Your task to perform on an android device: turn off javascript in the chrome app Image 0: 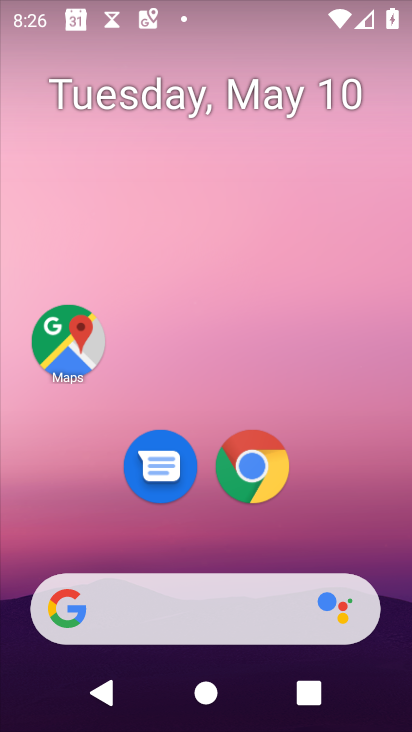
Step 0: click (251, 456)
Your task to perform on an android device: turn off javascript in the chrome app Image 1: 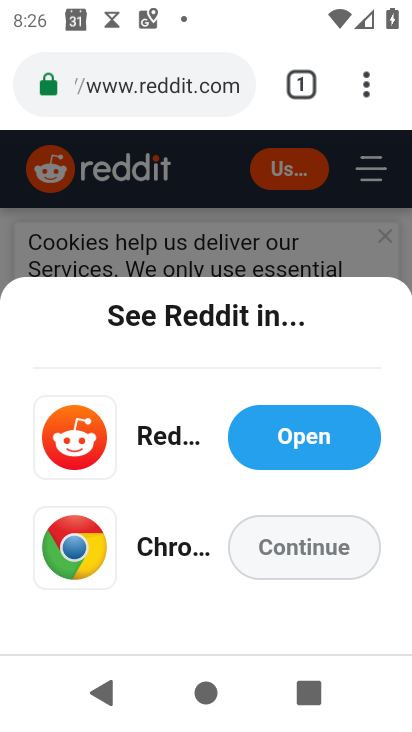
Step 1: click (375, 88)
Your task to perform on an android device: turn off javascript in the chrome app Image 2: 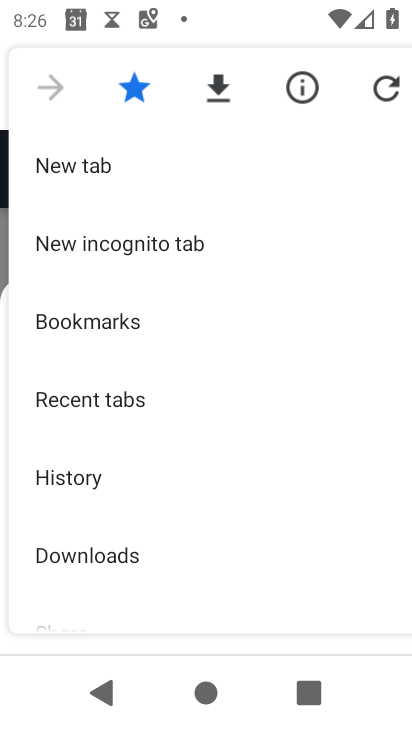
Step 2: drag from (221, 513) to (204, 193)
Your task to perform on an android device: turn off javascript in the chrome app Image 3: 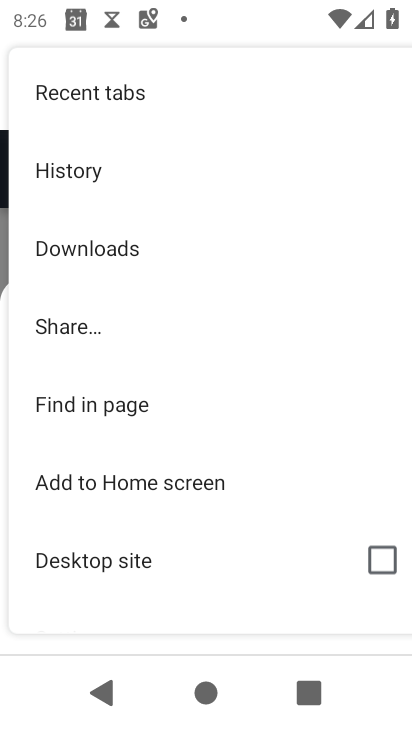
Step 3: drag from (151, 503) to (164, 292)
Your task to perform on an android device: turn off javascript in the chrome app Image 4: 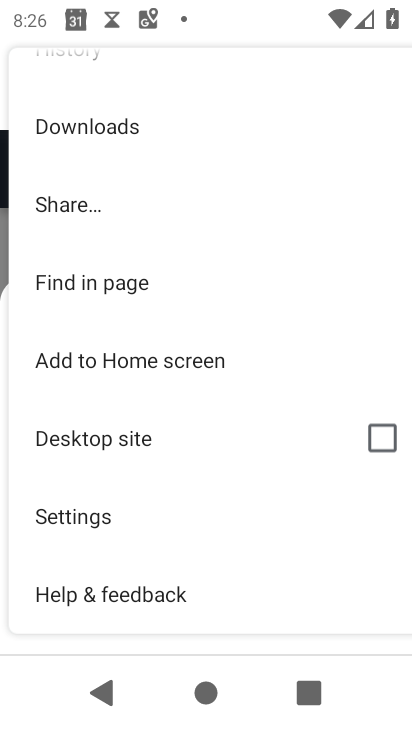
Step 4: click (135, 509)
Your task to perform on an android device: turn off javascript in the chrome app Image 5: 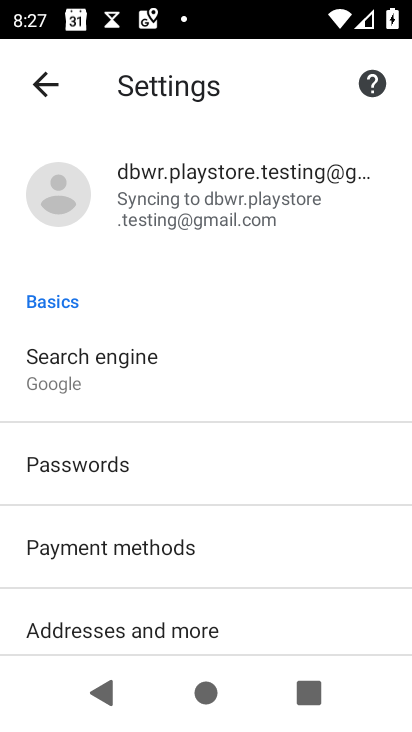
Step 5: drag from (173, 567) to (186, 273)
Your task to perform on an android device: turn off javascript in the chrome app Image 6: 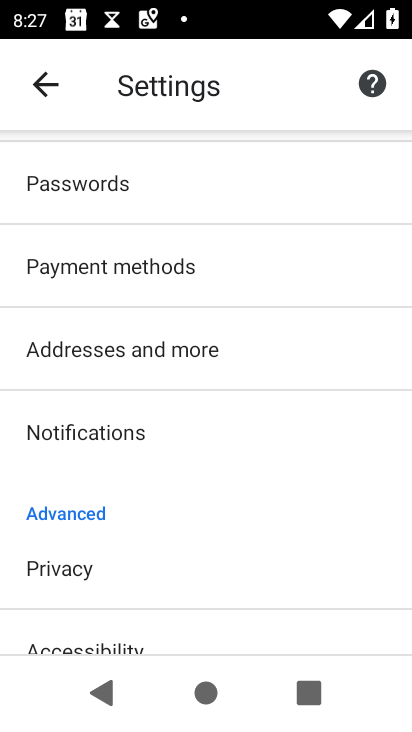
Step 6: drag from (188, 583) to (193, 380)
Your task to perform on an android device: turn off javascript in the chrome app Image 7: 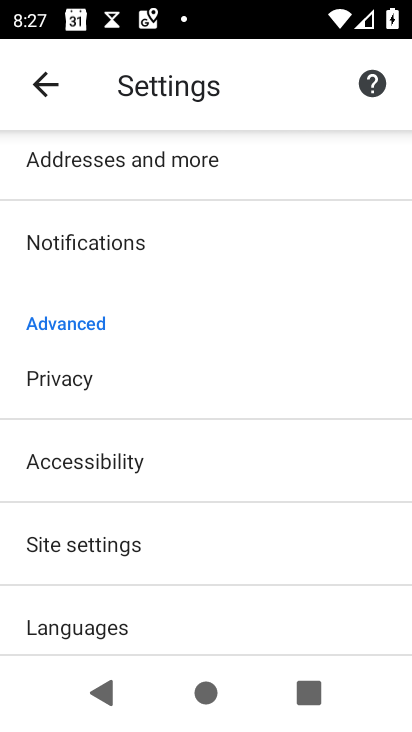
Step 7: click (194, 522)
Your task to perform on an android device: turn off javascript in the chrome app Image 8: 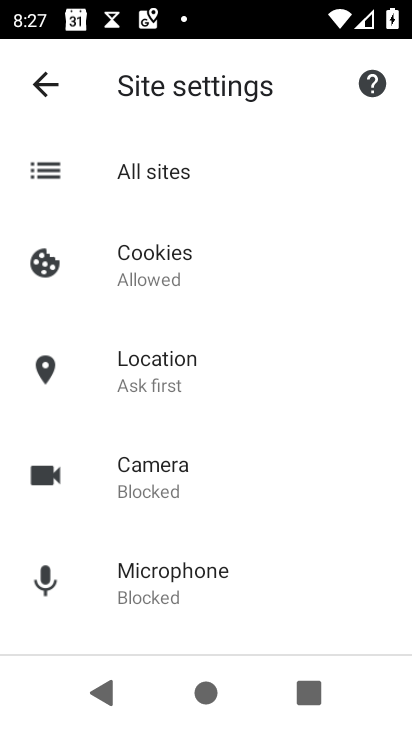
Step 8: drag from (163, 552) to (159, 270)
Your task to perform on an android device: turn off javascript in the chrome app Image 9: 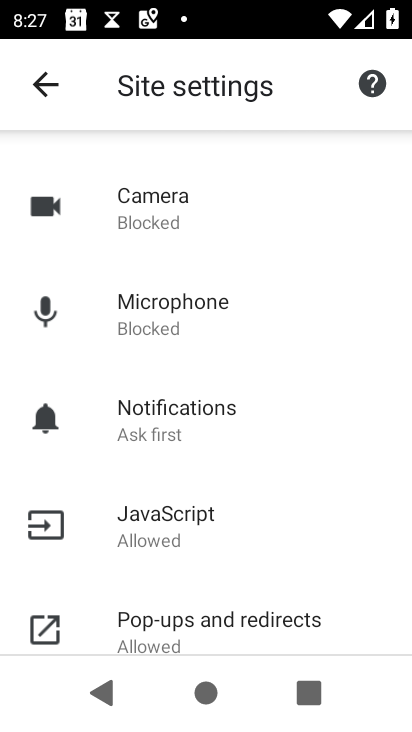
Step 9: click (188, 514)
Your task to perform on an android device: turn off javascript in the chrome app Image 10: 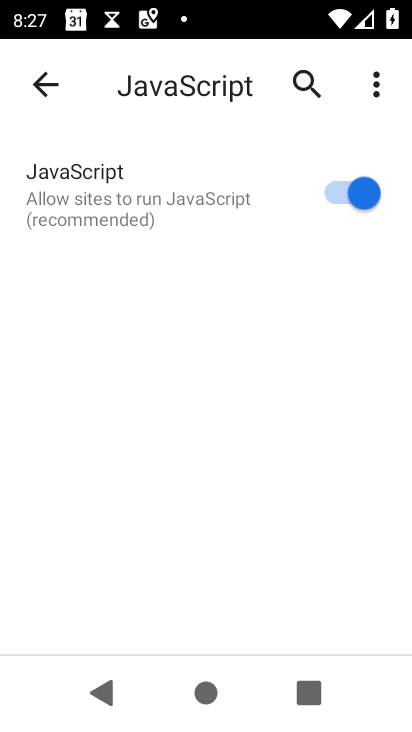
Step 10: click (324, 188)
Your task to perform on an android device: turn off javascript in the chrome app Image 11: 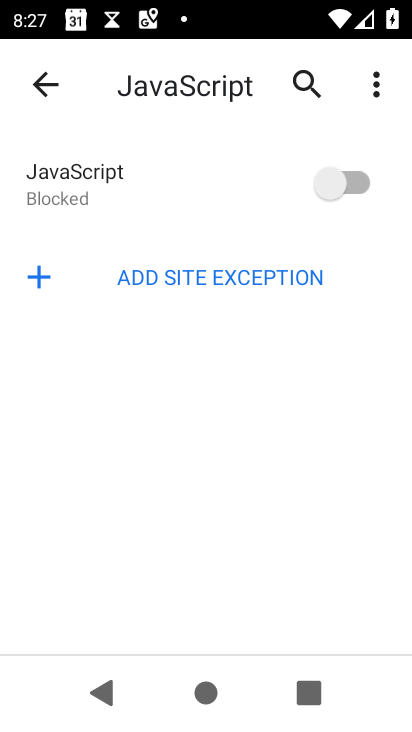
Step 11: task complete